Your task to perform on an android device: turn off location Image 0: 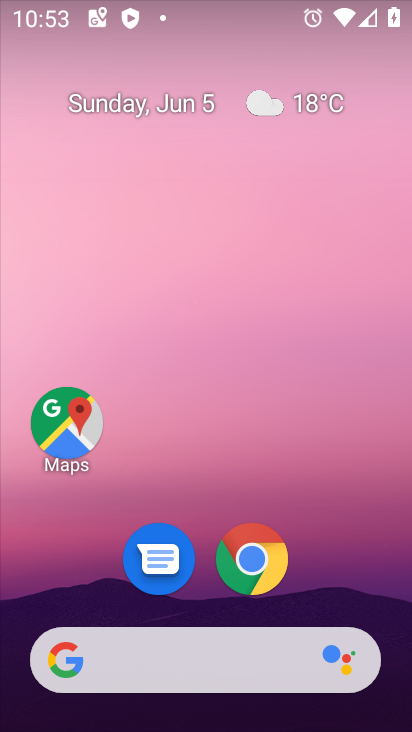
Step 0: drag from (388, 629) to (277, 56)
Your task to perform on an android device: turn off location Image 1: 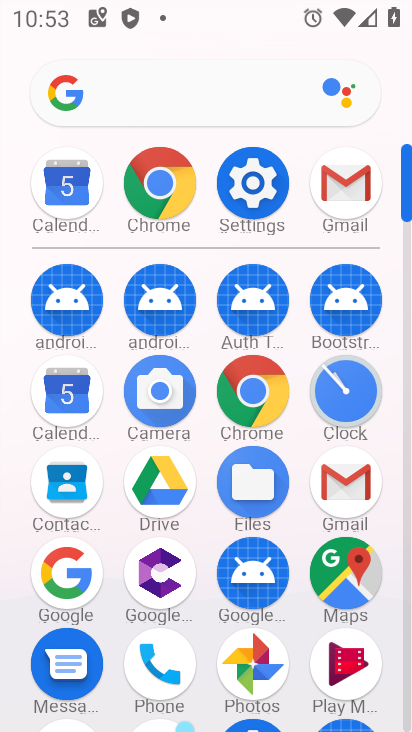
Step 1: click (247, 175)
Your task to perform on an android device: turn off location Image 2: 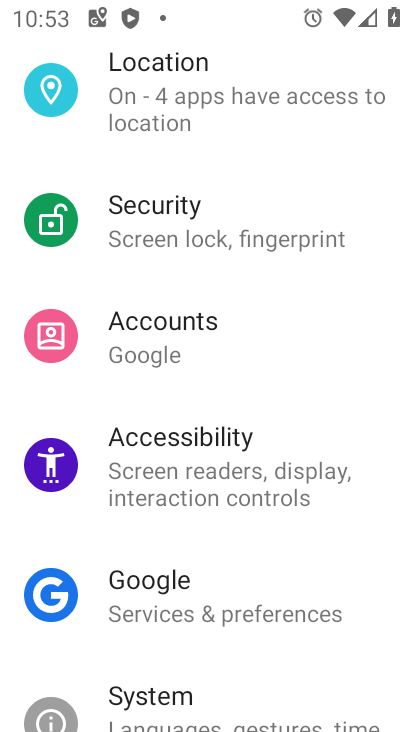
Step 2: click (194, 97)
Your task to perform on an android device: turn off location Image 3: 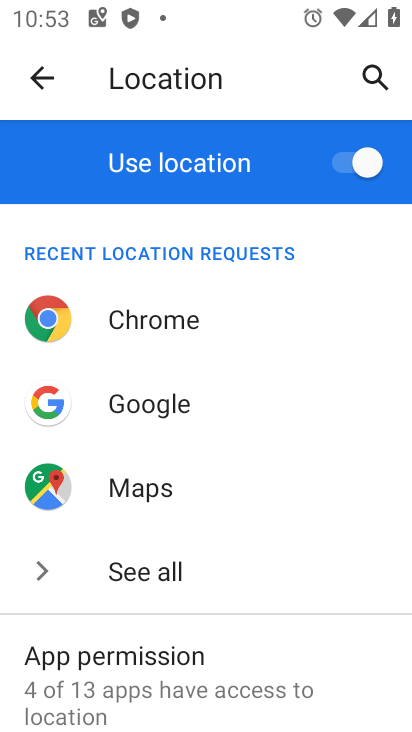
Step 3: click (338, 171)
Your task to perform on an android device: turn off location Image 4: 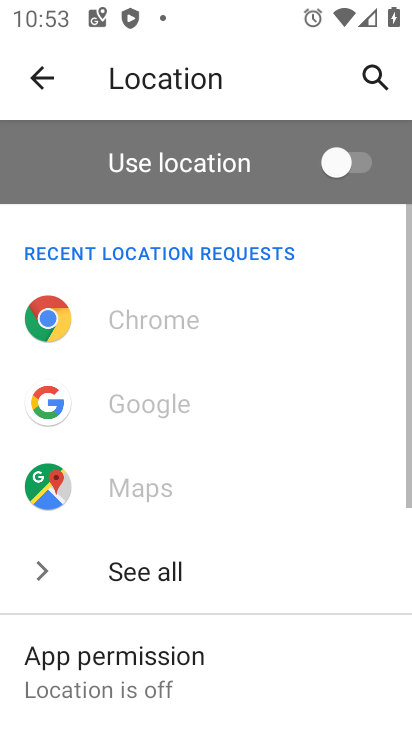
Step 4: task complete